Your task to perform on an android device: open the mobile data screen to see how much data has been used Image 0: 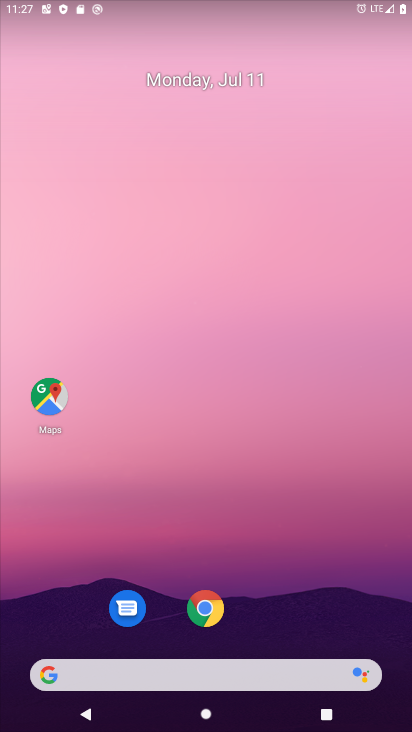
Step 0: drag from (27, 699) to (91, 0)
Your task to perform on an android device: open the mobile data screen to see how much data has been used Image 1: 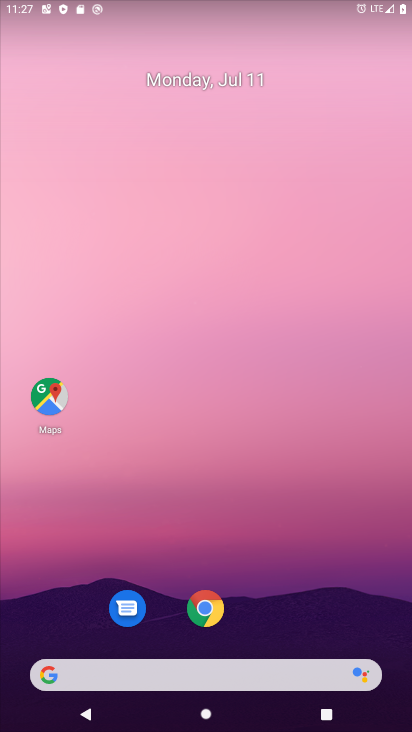
Step 1: drag from (98, 658) to (318, 31)
Your task to perform on an android device: open the mobile data screen to see how much data has been used Image 2: 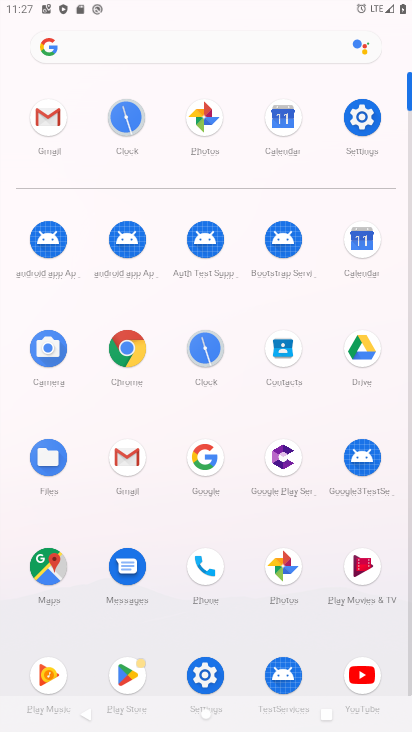
Step 2: click (193, 691)
Your task to perform on an android device: open the mobile data screen to see how much data has been used Image 3: 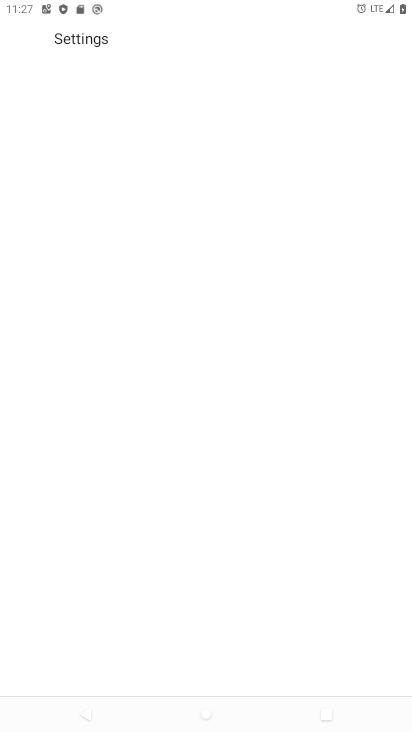
Step 3: click (204, 673)
Your task to perform on an android device: open the mobile data screen to see how much data has been used Image 4: 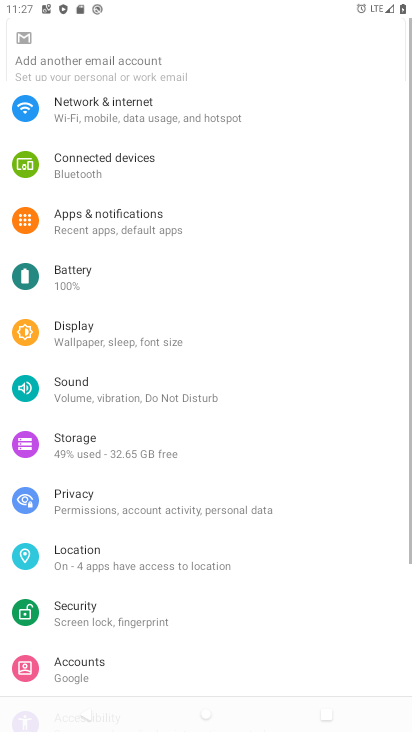
Step 4: click (207, 673)
Your task to perform on an android device: open the mobile data screen to see how much data has been used Image 5: 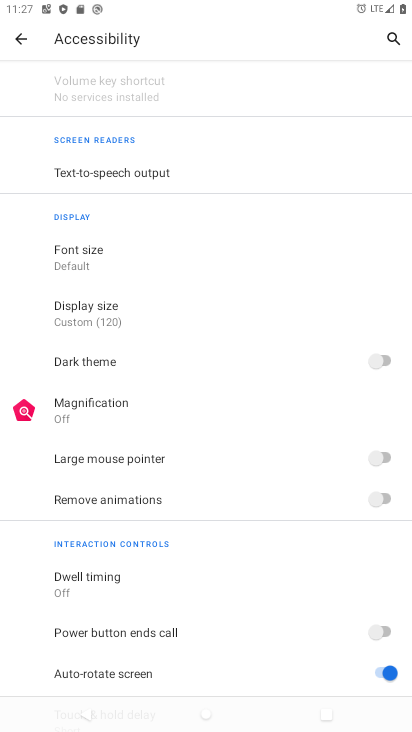
Step 5: click (23, 38)
Your task to perform on an android device: open the mobile data screen to see how much data has been used Image 6: 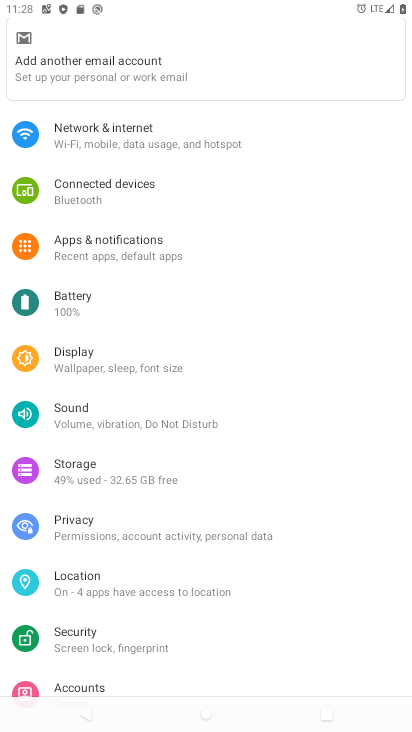
Step 6: click (87, 134)
Your task to perform on an android device: open the mobile data screen to see how much data has been used Image 7: 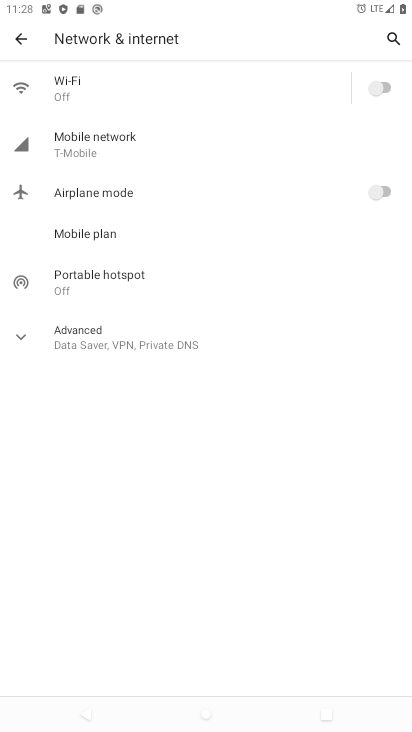
Step 7: click (43, 148)
Your task to perform on an android device: open the mobile data screen to see how much data has been used Image 8: 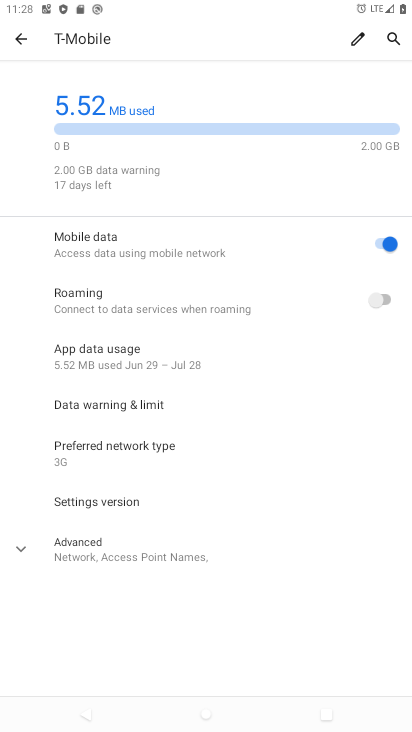
Step 8: task complete